Your task to perform on an android device: Go to Amazon Image 0: 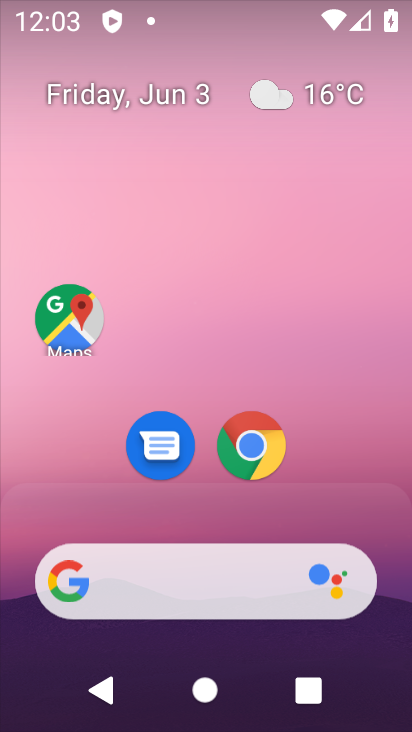
Step 0: click (256, 446)
Your task to perform on an android device: Go to Amazon Image 1: 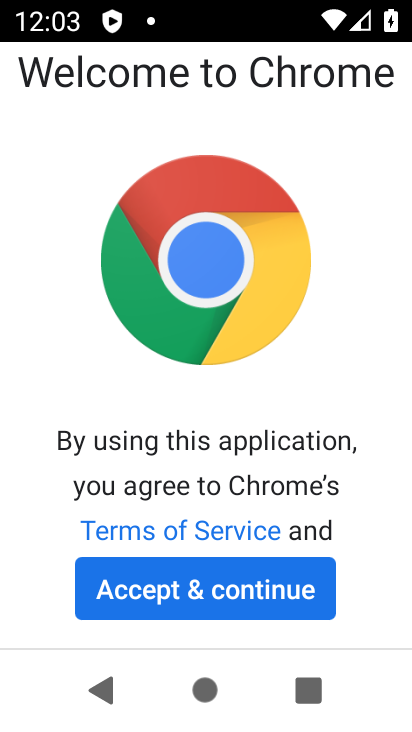
Step 1: click (241, 578)
Your task to perform on an android device: Go to Amazon Image 2: 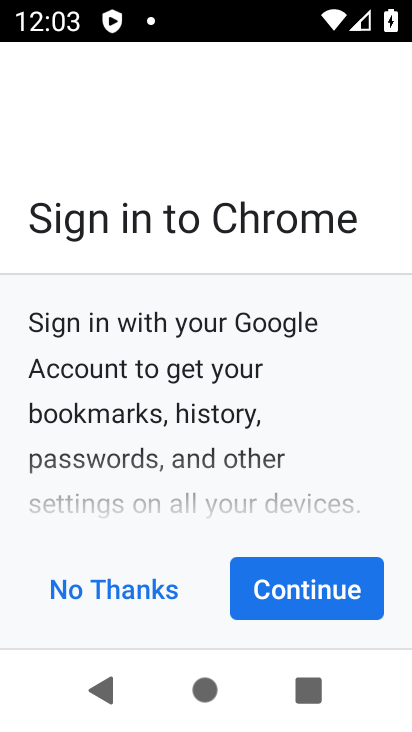
Step 2: click (281, 578)
Your task to perform on an android device: Go to Amazon Image 3: 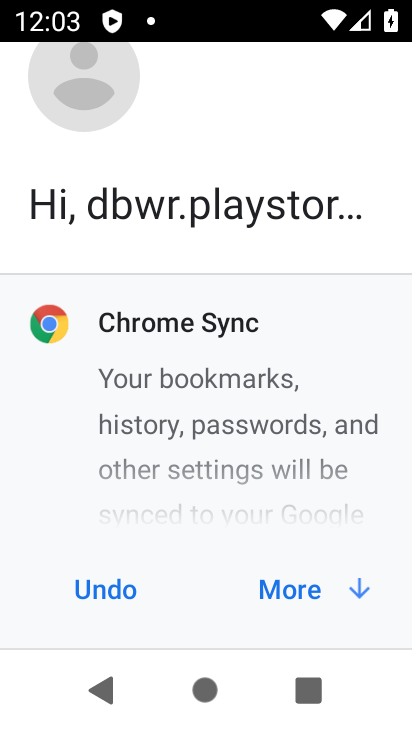
Step 3: click (281, 578)
Your task to perform on an android device: Go to Amazon Image 4: 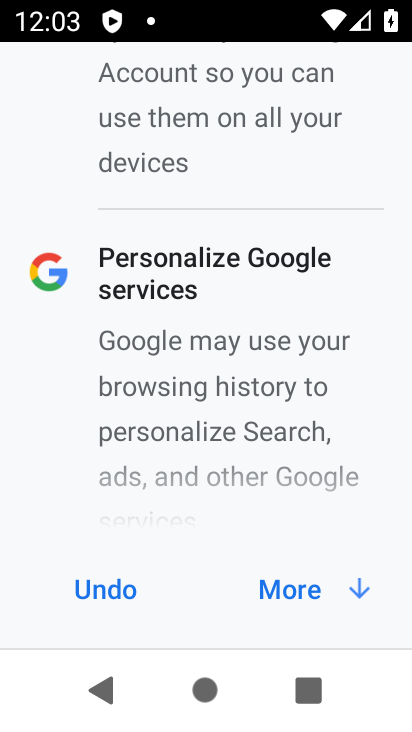
Step 4: click (281, 578)
Your task to perform on an android device: Go to Amazon Image 5: 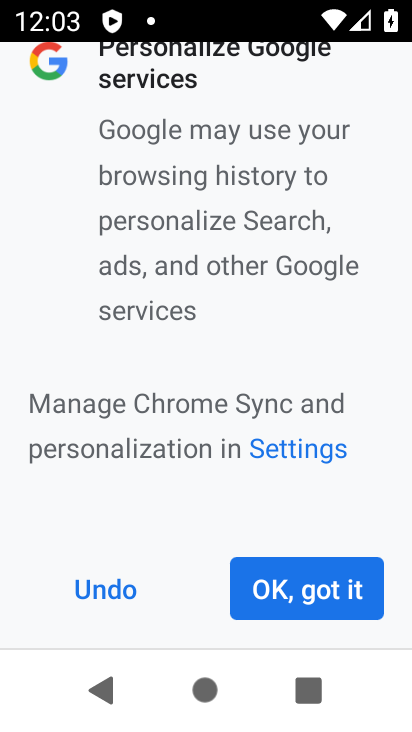
Step 5: click (281, 578)
Your task to perform on an android device: Go to Amazon Image 6: 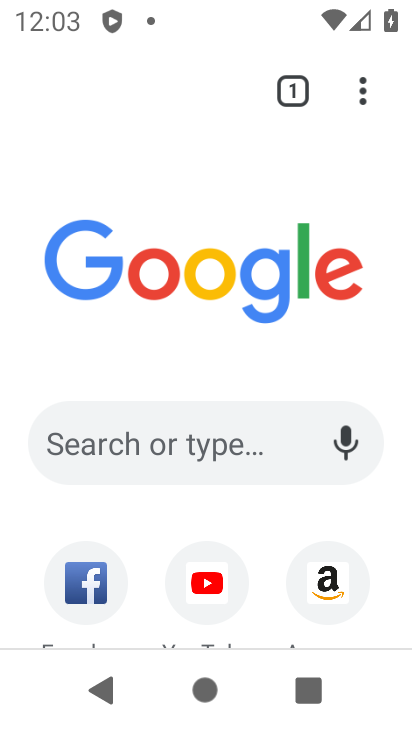
Step 6: click (323, 576)
Your task to perform on an android device: Go to Amazon Image 7: 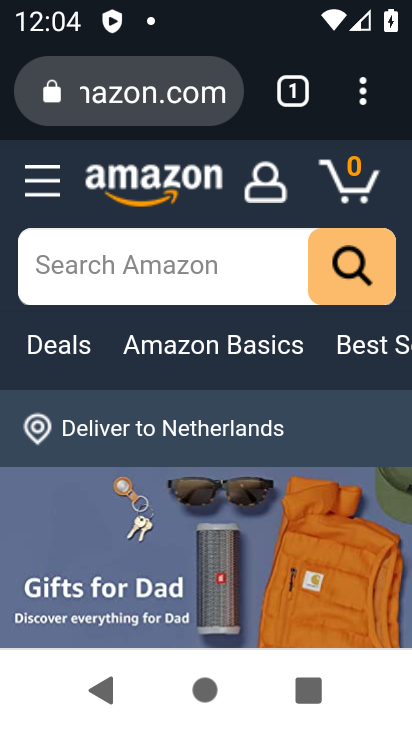
Step 7: task complete